Your task to perform on an android device: Search for vegetarian restaurants on Maps Image 0: 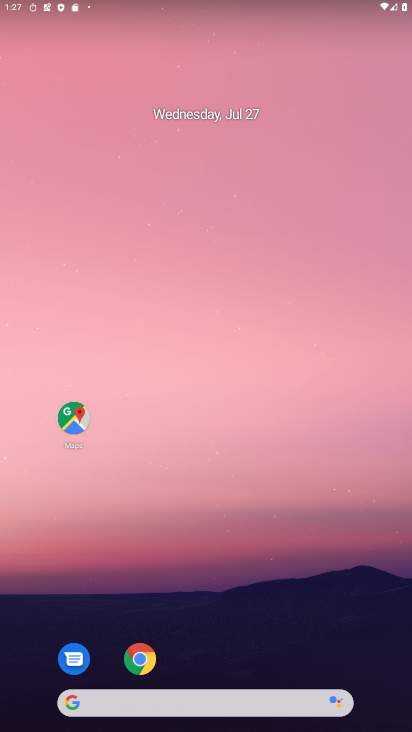
Step 0: press home button
Your task to perform on an android device: Search for vegetarian restaurants on Maps Image 1: 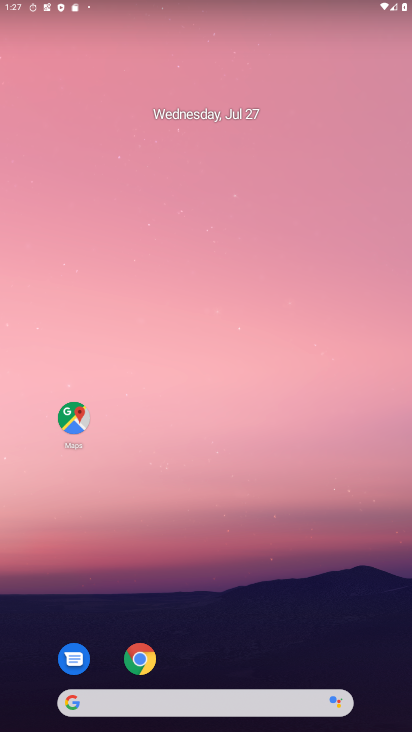
Step 1: click (70, 411)
Your task to perform on an android device: Search for vegetarian restaurants on Maps Image 2: 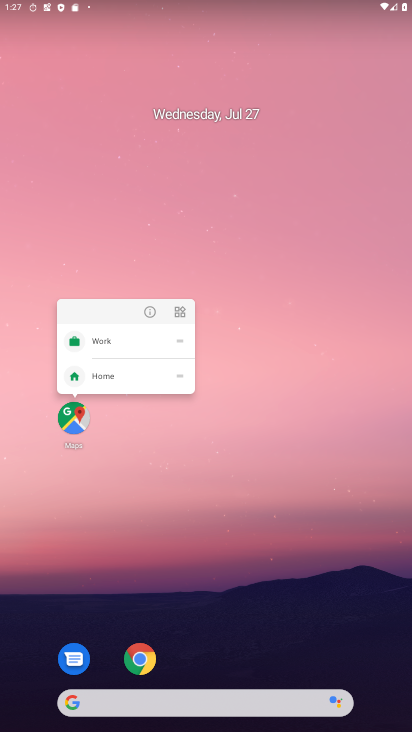
Step 2: click (72, 411)
Your task to perform on an android device: Search for vegetarian restaurants on Maps Image 3: 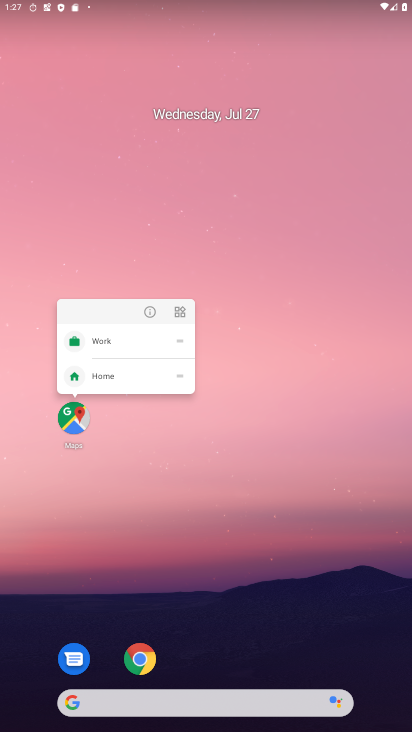
Step 3: drag from (223, 617) to (242, 17)
Your task to perform on an android device: Search for vegetarian restaurants on Maps Image 4: 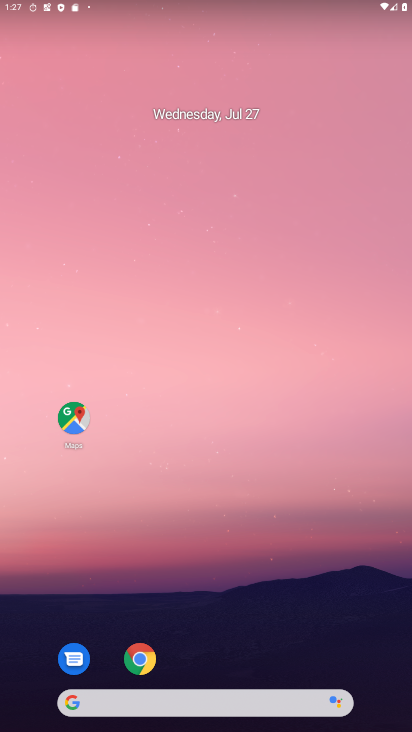
Step 4: drag from (249, 627) to (261, 27)
Your task to perform on an android device: Search for vegetarian restaurants on Maps Image 5: 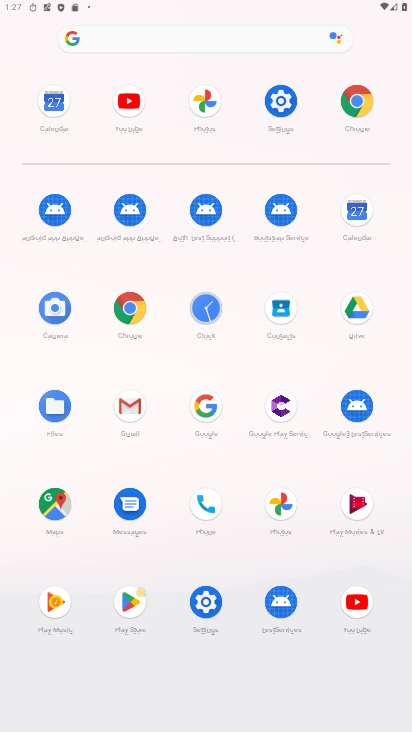
Step 5: click (54, 497)
Your task to perform on an android device: Search for vegetarian restaurants on Maps Image 6: 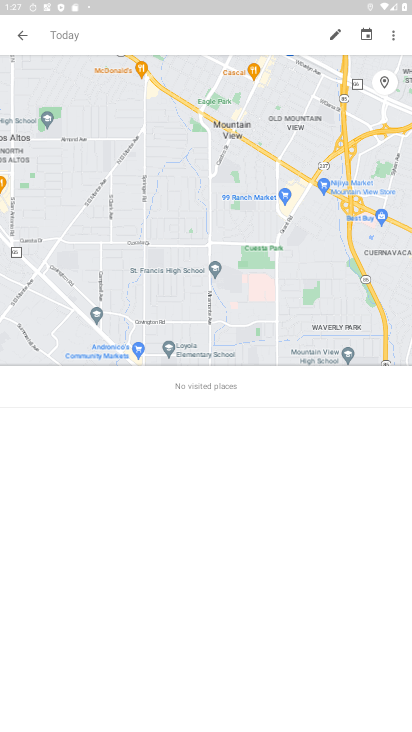
Step 6: click (23, 39)
Your task to perform on an android device: Search for vegetarian restaurants on Maps Image 7: 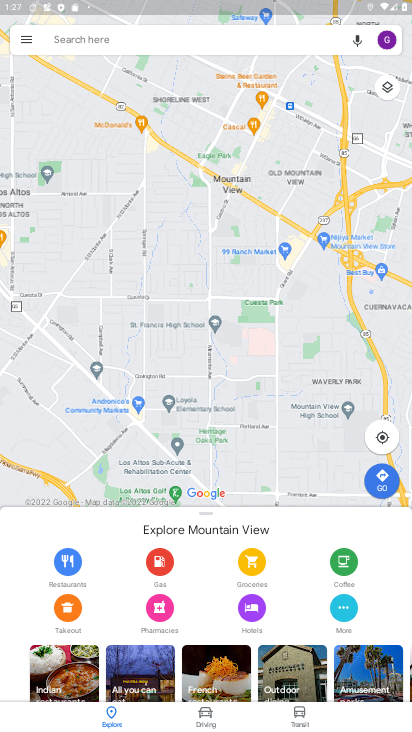
Step 7: click (103, 37)
Your task to perform on an android device: Search for vegetarian restaurants on Maps Image 8: 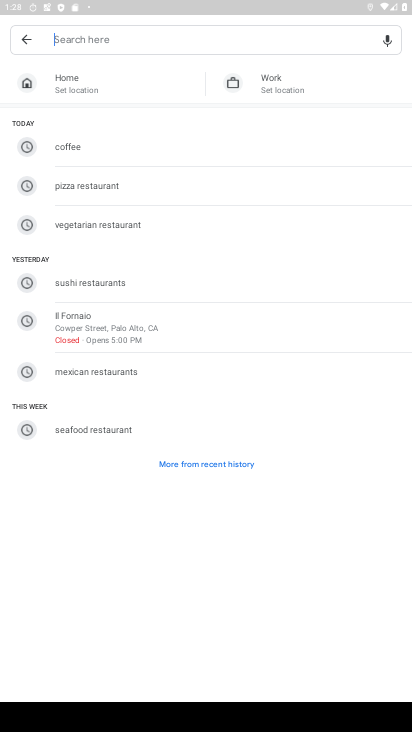
Step 8: click (123, 222)
Your task to perform on an android device: Search for vegetarian restaurants on Maps Image 9: 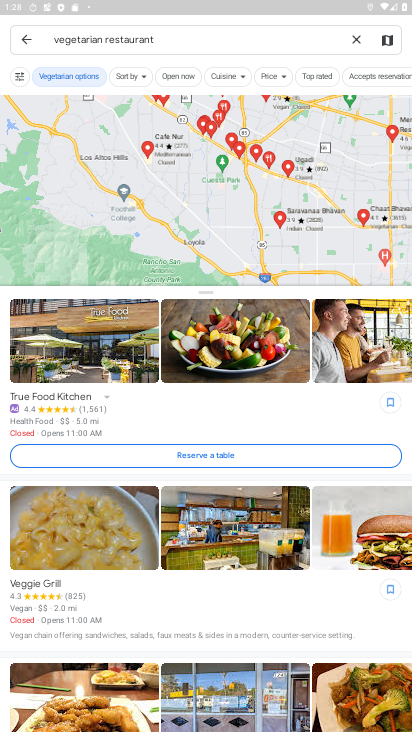
Step 9: task complete